Your task to perform on an android device: Go to network settings Image 0: 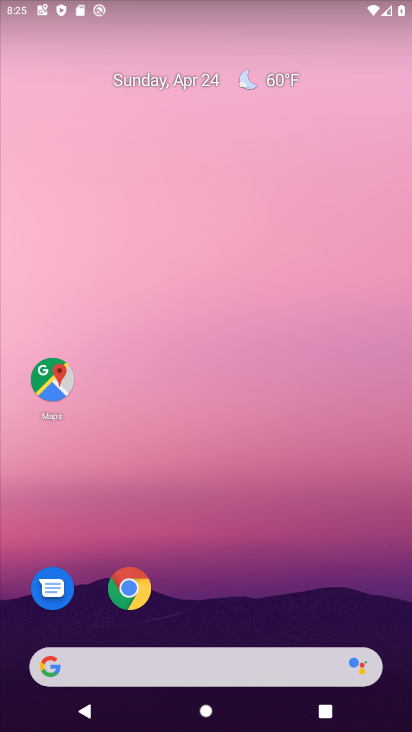
Step 0: drag from (224, 519) to (197, 47)
Your task to perform on an android device: Go to network settings Image 1: 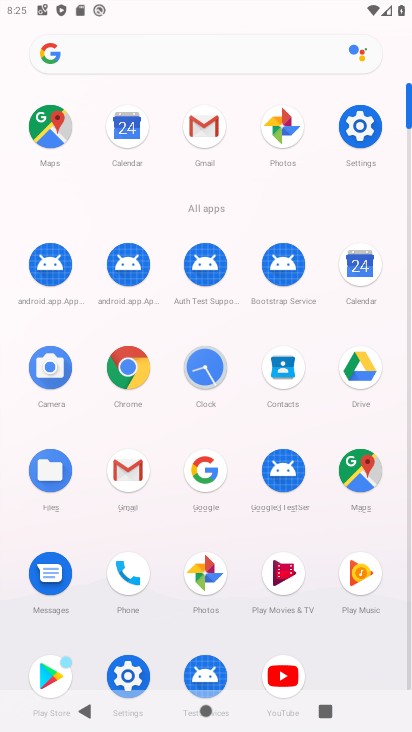
Step 1: click (362, 126)
Your task to perform on an android device: Go to network settings Image 2: 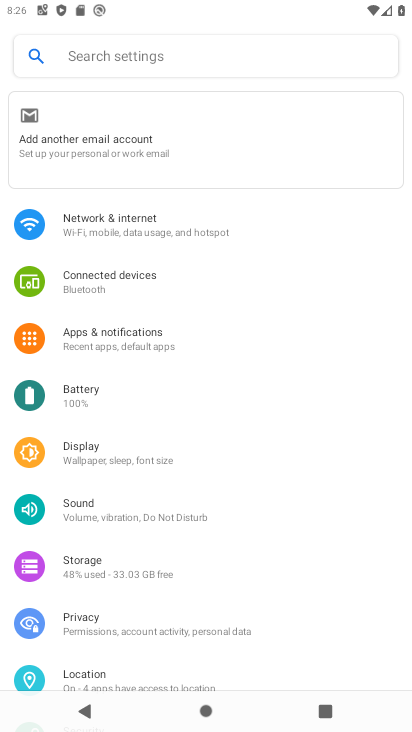
Step 2: click (185, 234)
Your task to perform on an android device: Go to network settings Image 3: 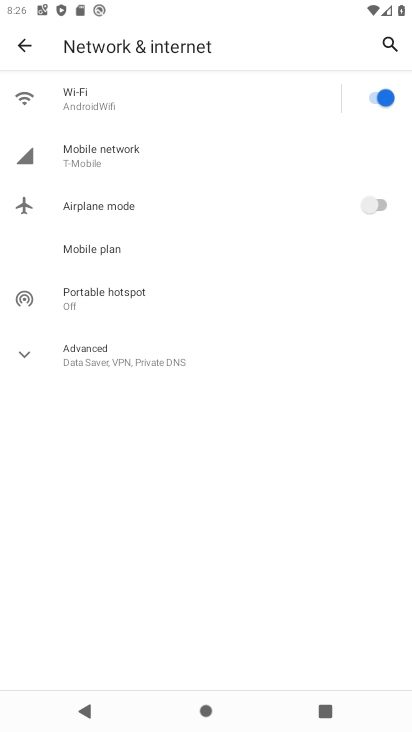
Step 3: click (135, 152)
Your task to perform on an android device: Go to network settings Image 4: 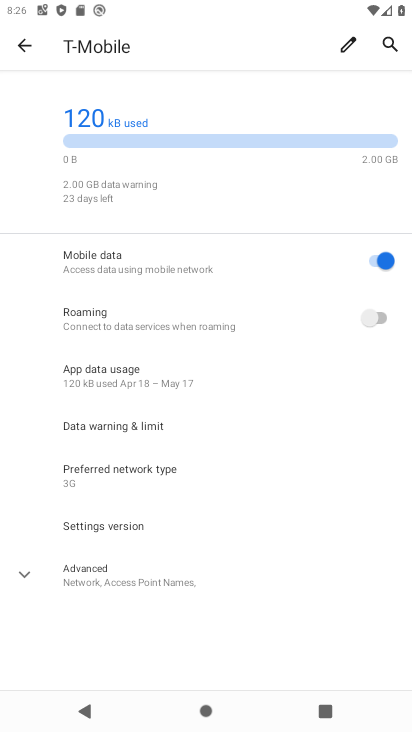
Step 4: task complete